Your task to perform on an android device: turn on improve location accuracy Image 0: 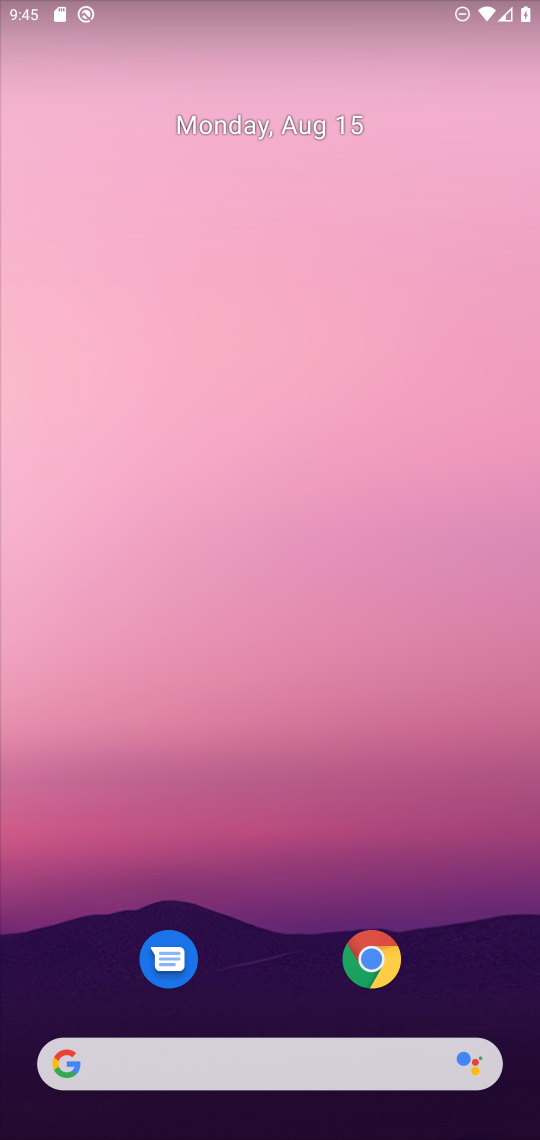
Step 0: drag from (270, 1034) to (443, 22)
Your task to perform on an android device: turn on improve location accuracy Image 1: 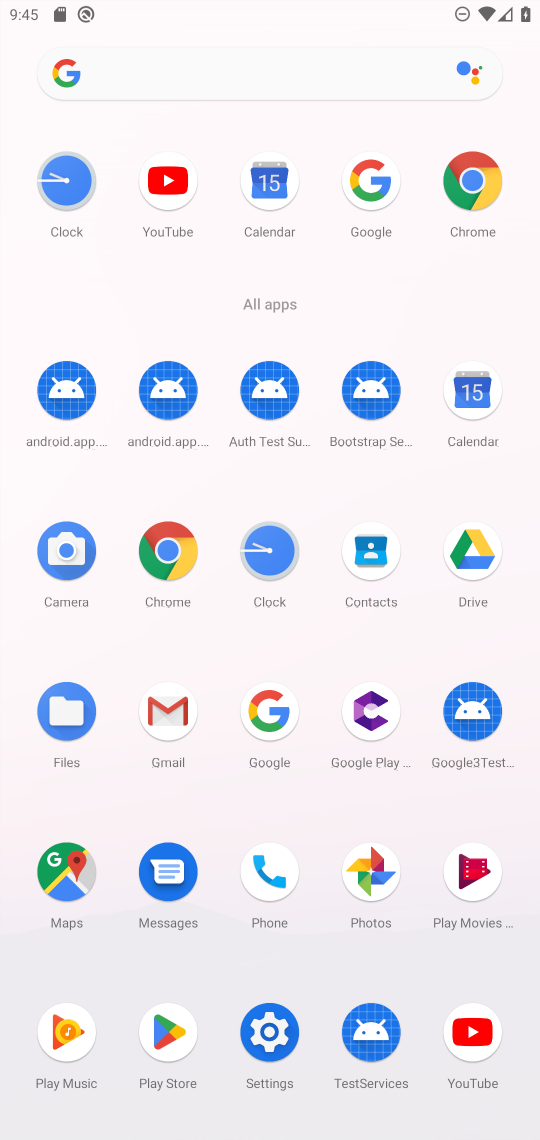
Step 1: click (285, 1025)
Your task to perform on an android device: turn on improve location accuracy Image 2: 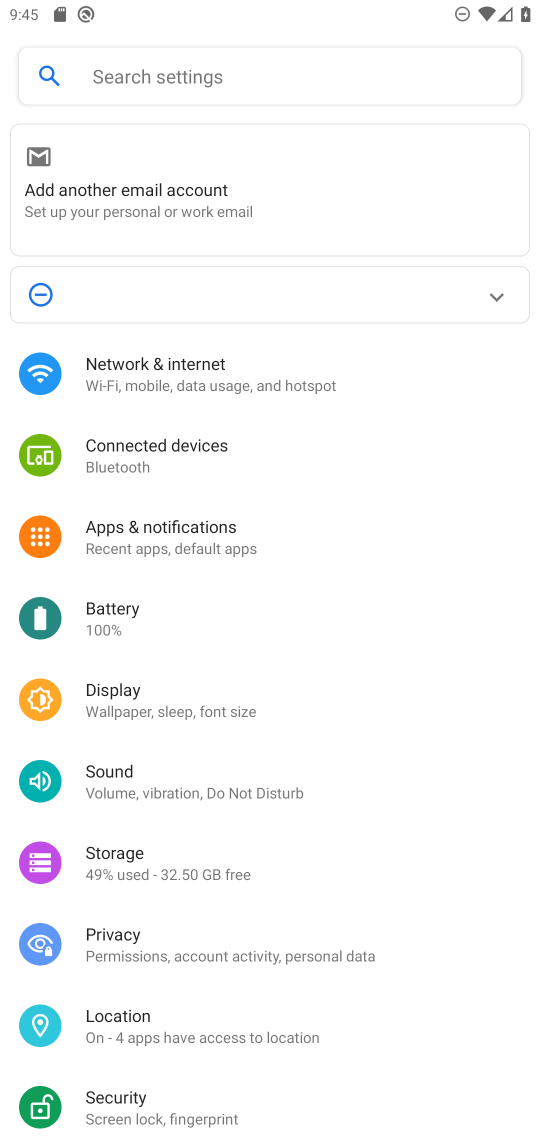
Step 2: click (169, 1014)
Your task to perform on an android device: turn on improve location accuracy Image 3: 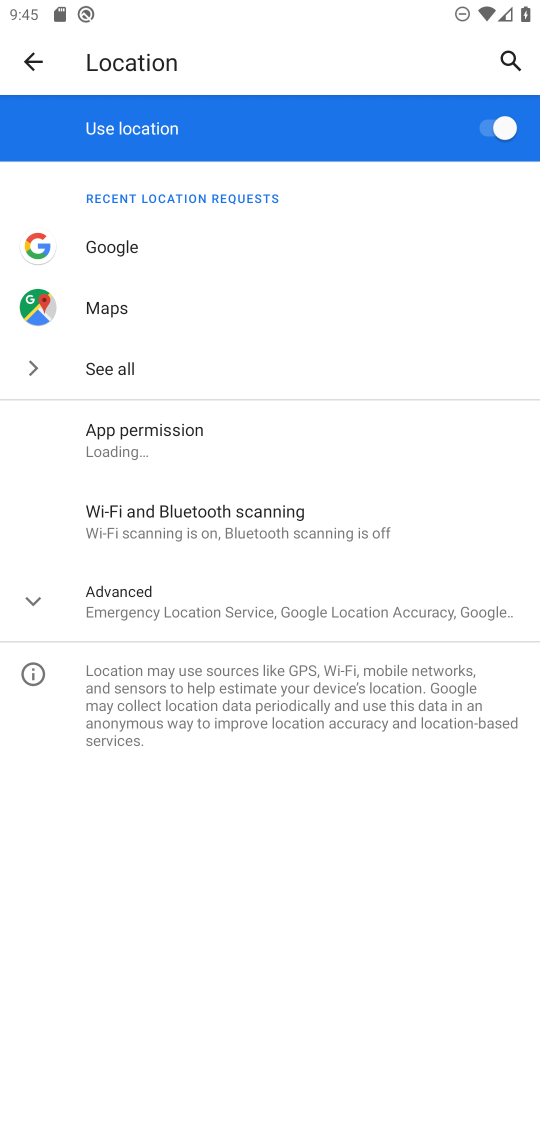
Step 3: click (122, 596)
Your task to perform on an android device: turn on improve location accuracy Image 4: 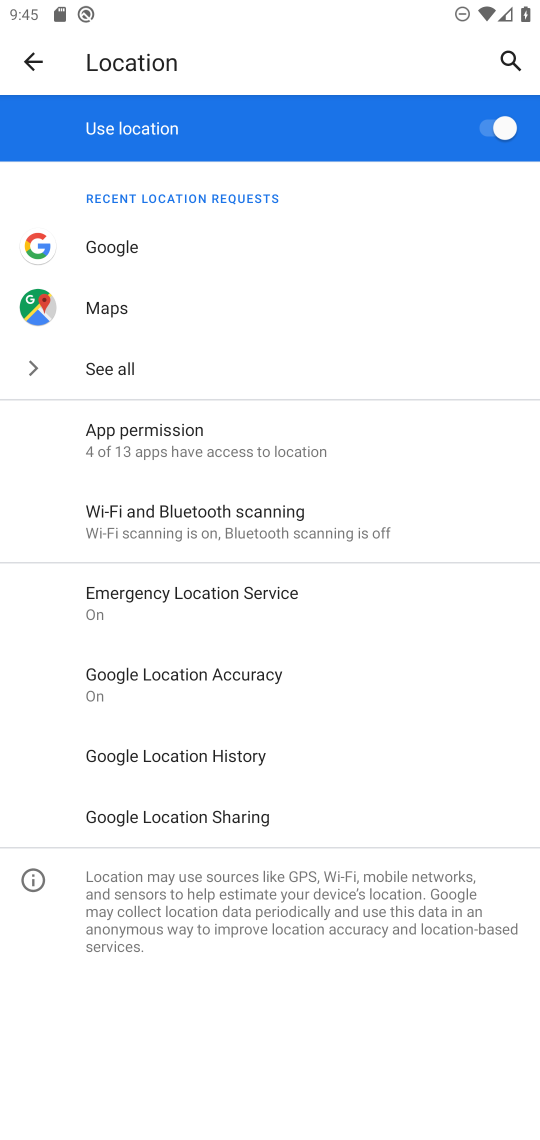
Step 4: click (166, 690)
Your task to perform on an android device: turn on improve location accuracy Image 5: 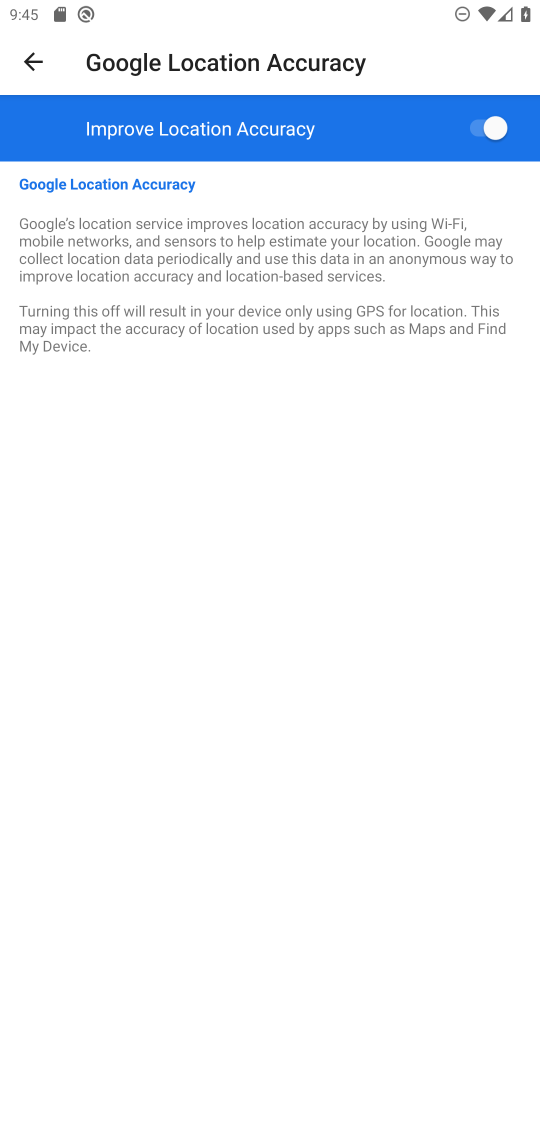
Step 5: task complete